Your task to perform on an android device: find photos in the google photos app Image 0: 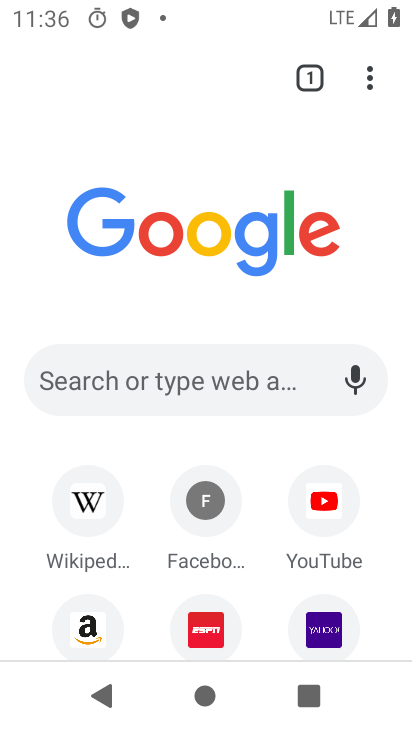
Step 0: press back button
Your task to perform on an android device: find photos in the google photos app Image 1: 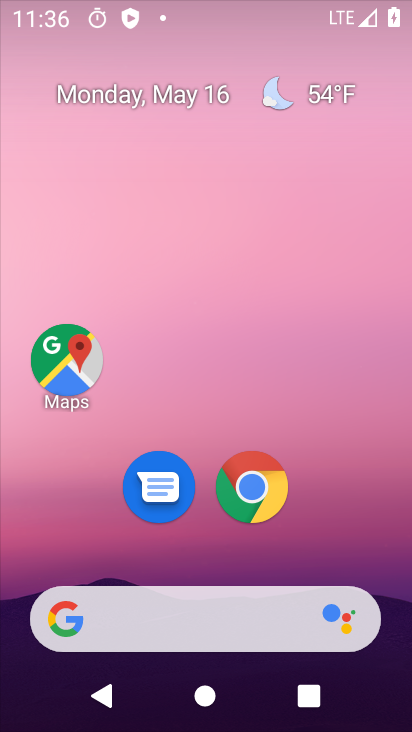
Step 1: drag from (224, 523) to (283, 33)
Your task to perform on an android device: find photos in the google photos app Image 2: 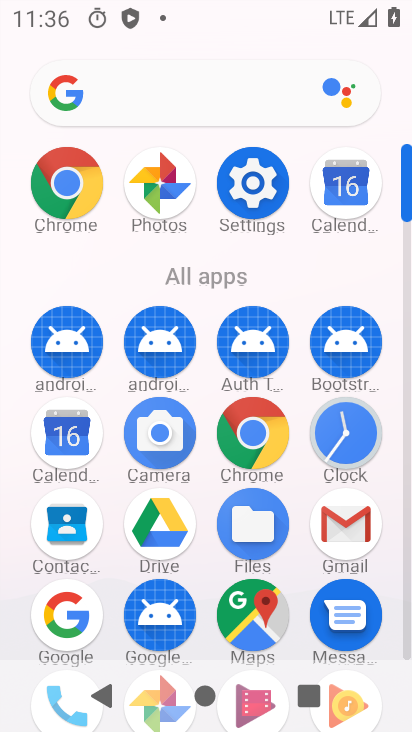
Step 2: drag from (174, 542) to (273, 89)
Your task to perform on an android device: find photos in the google photos app Image 3: 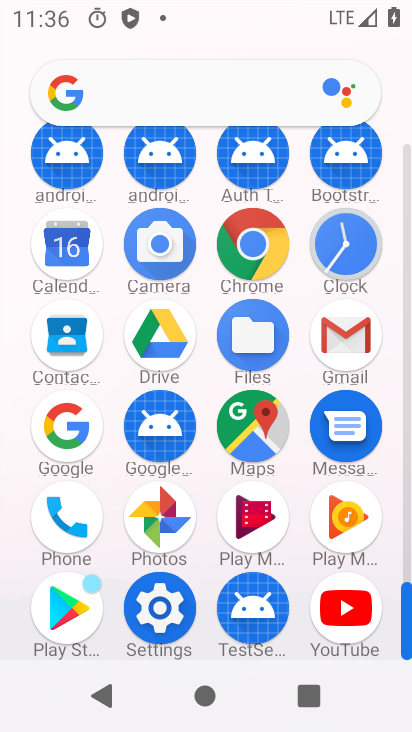
Step 3: click (152, 520)
Your task to perform on an android device: find photos in the google photos app Image 4: 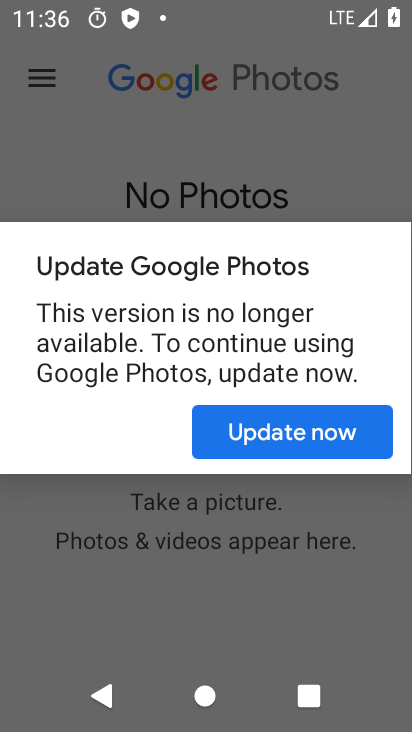
Step 4: press back button
Your task to perform on an android device: find photos in the google photos app Image 5: 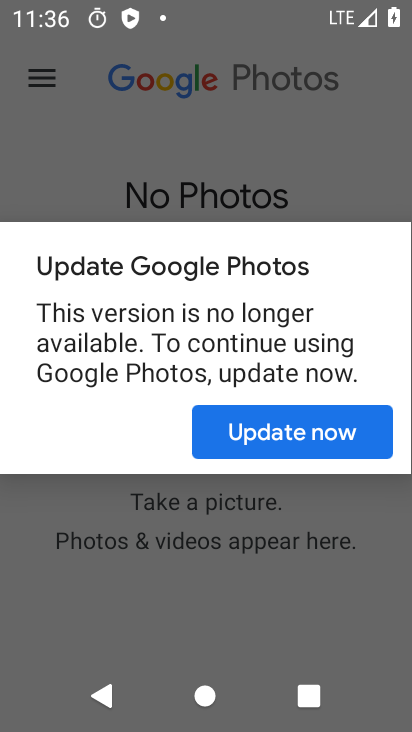
Step 5: click (291, 442)
Your task to perform on an android device: find photos in the google photos app Image 6: 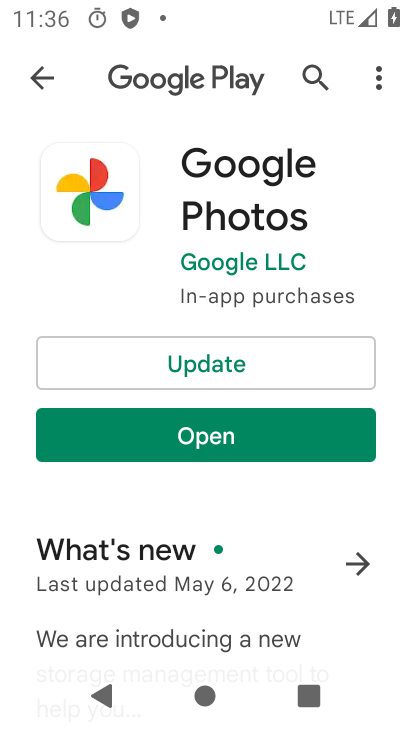
Step 6: click (203, 436)
Your task to perform on an android device: find photos in the google photos app Image 7: 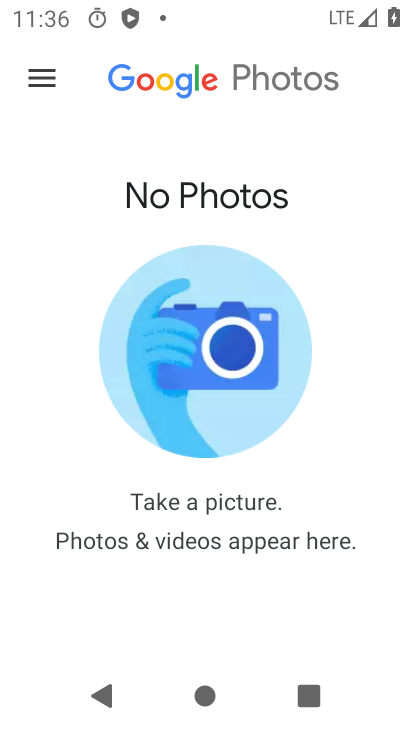
Step 7: task complete